Your task to perform on an android device: Go to ESPN.com Image 0: 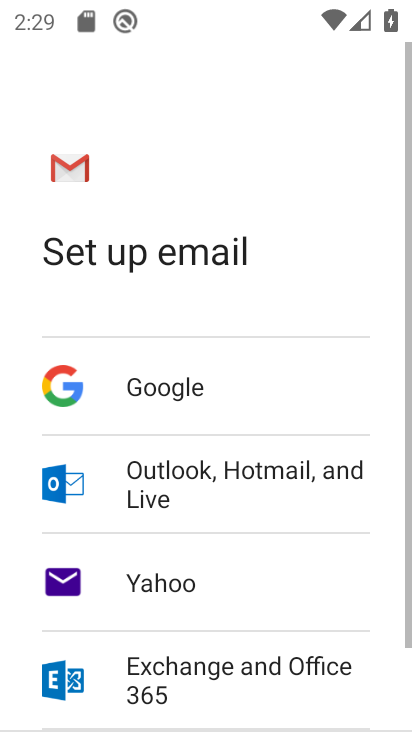
Step 0: press back button
Your task to perform on an android device: Go to ESPN.com Image 1: 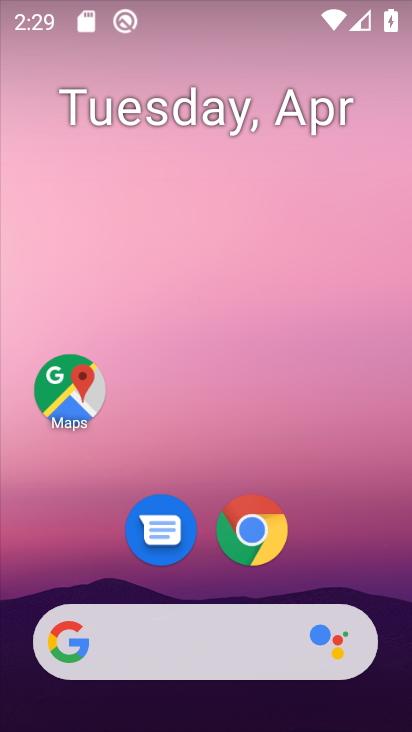
Step 1: click (243, 530)
Your task to perform on an android device: Go to ESPN.com Image 2: 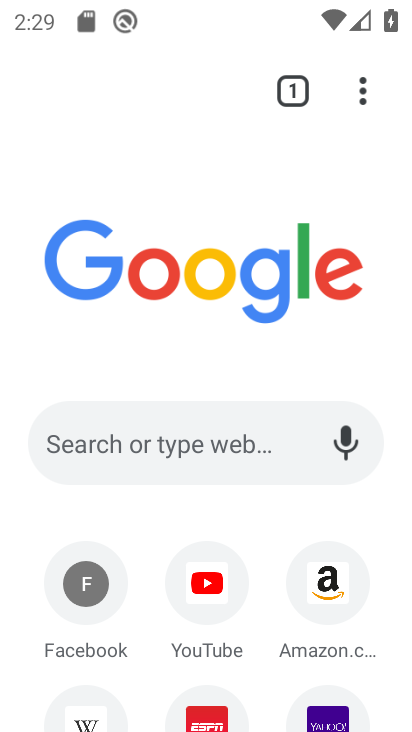
Step 2: click (199, 719)
Your task to perform on an android device: Go to ESPN.com Image 3: 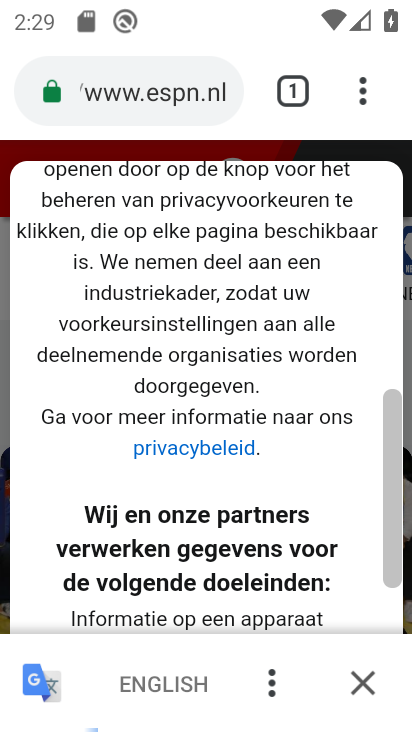
Step 3: task complete